Your task to perform on an android device: Open Google Chrome and open the bookmarks view Image 0: 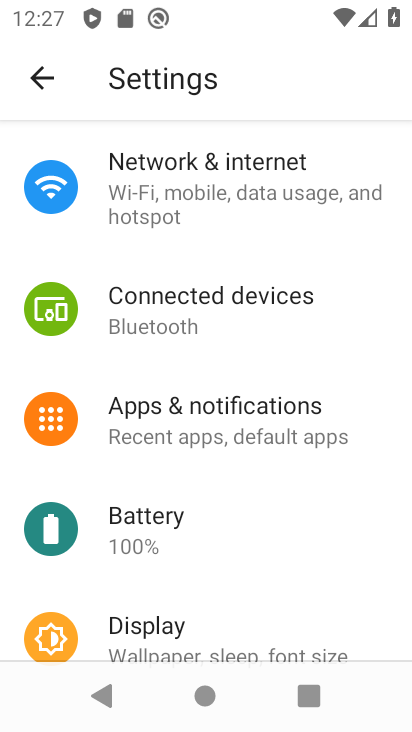
Step 0: press home button
Your task to perform on an android device: Open Google Chrome and open the bookmarks view Image 1: 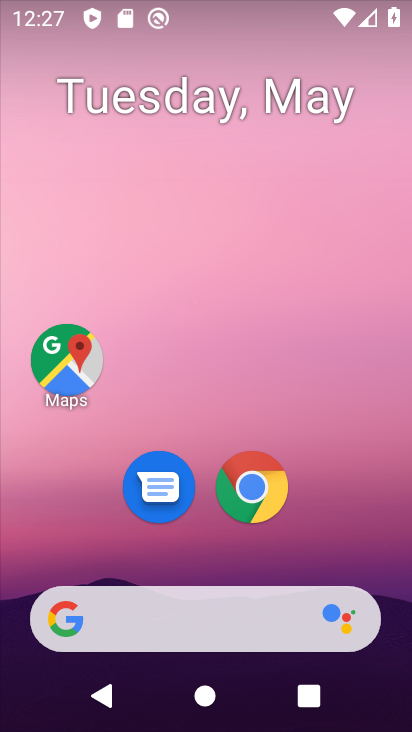
Step 1: click (245, 493)
Your task to perform on an android device: Open Google Chrome and open the bookmarks view Image 2: 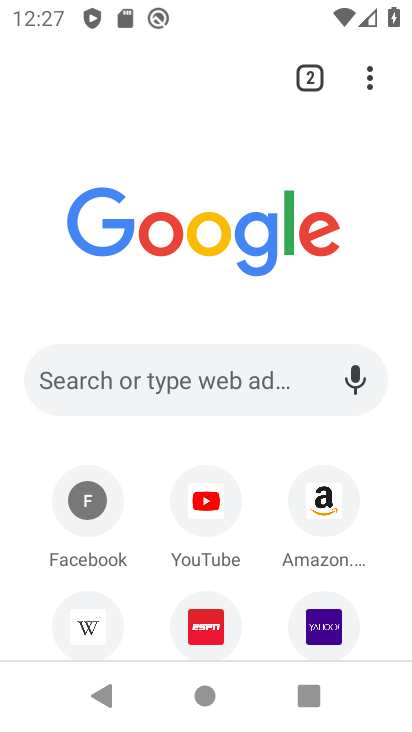
Step 2: click (371, 73)
Your task to perform on an android device: Open Google Chrome and open the bookmarks view Image 3: 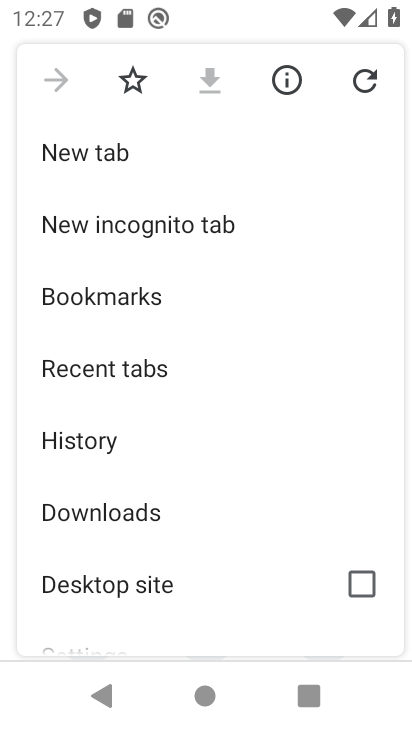
Step 3: click (131, 305)
Your task to perform on an android device: Open Google Chrome and open the bookmarks view Image 4: 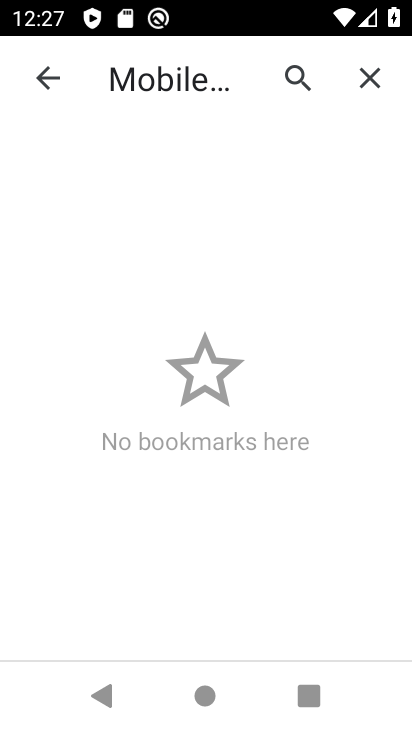
Step 4: task complete